Your task to perform on an android device: What's the news about the US dollar? Image 0: 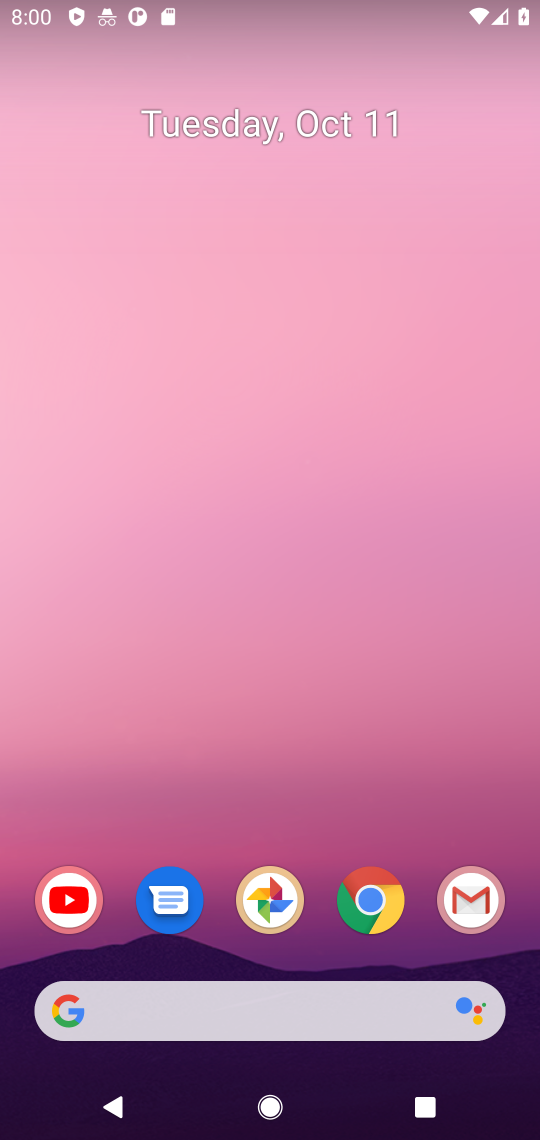
Step 0: press home button
Your task to perform on an android device: What's the news about the US dollar? Image 1: 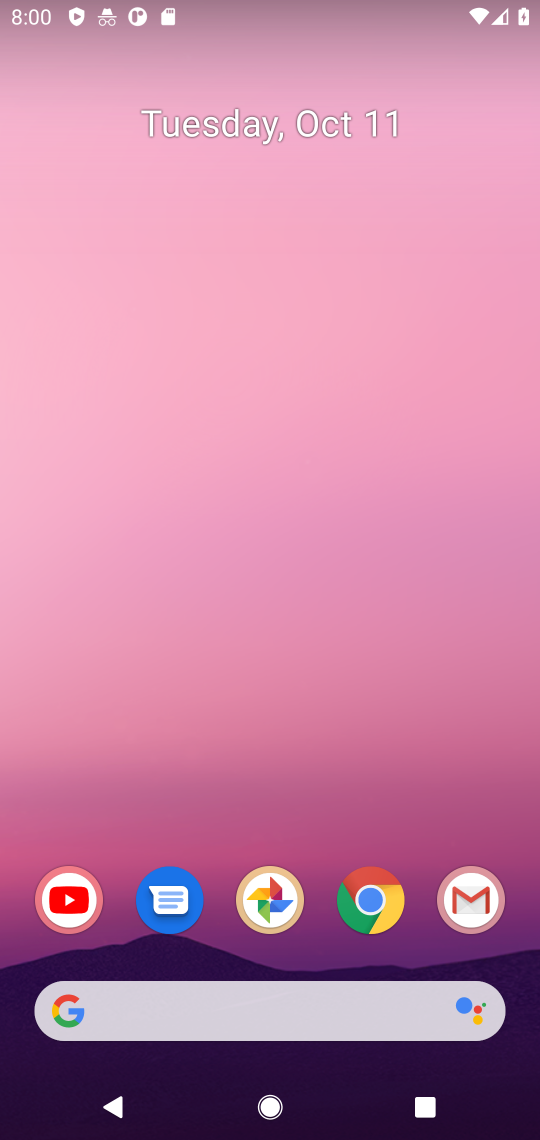
Step 1: click (392, 899)
Your task to perform on an android device: What's the news about the US dollar? Image 2: 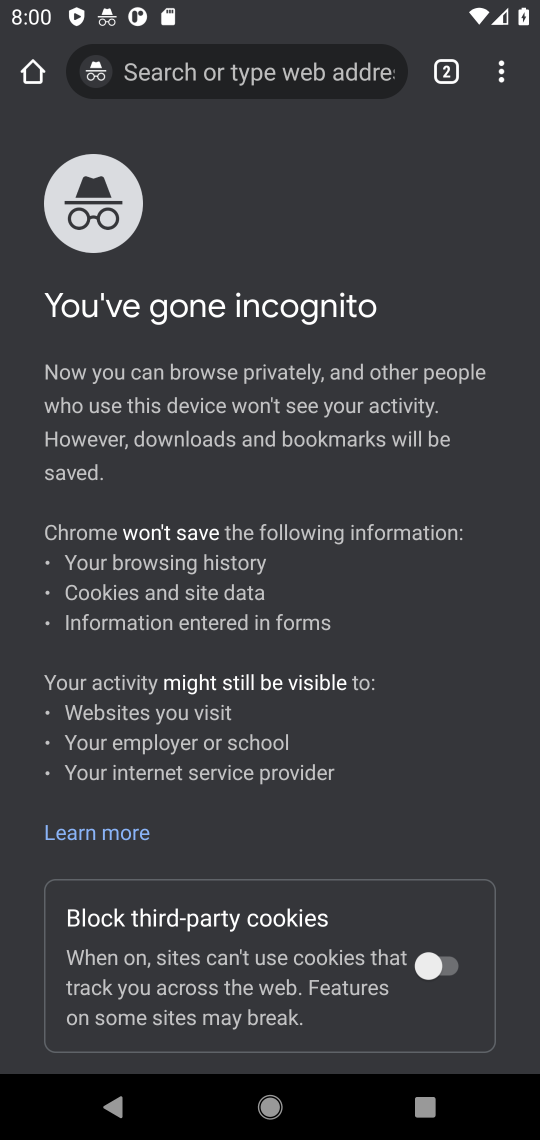
Step 2: click (369, 86)
Your task to perform on an android device: What's the news about the US dollar? Image 3: 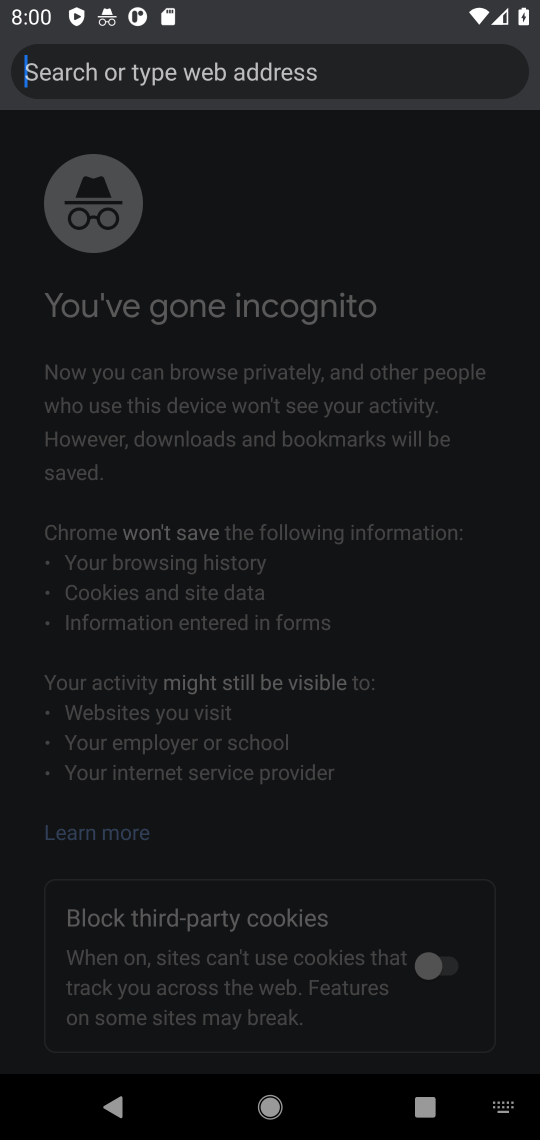
Step 3: type "news about the US dollar"
Your task to perform on an android device: What's the news about the US dollar? Image 4: 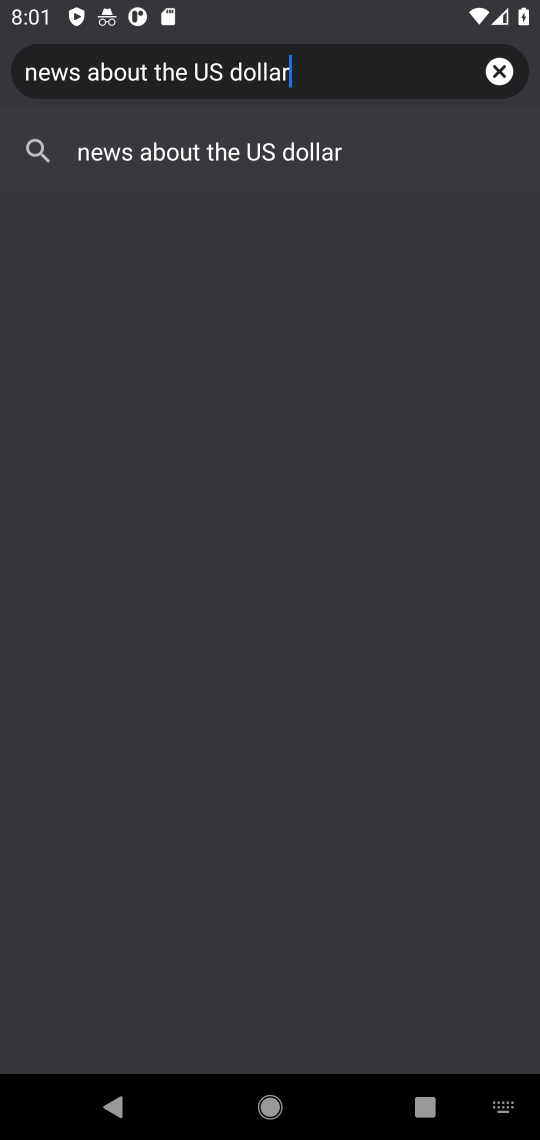
Step 4: click (305, 147)
Your task to perform on an android device: What's the news about the US dollar? Image 5: 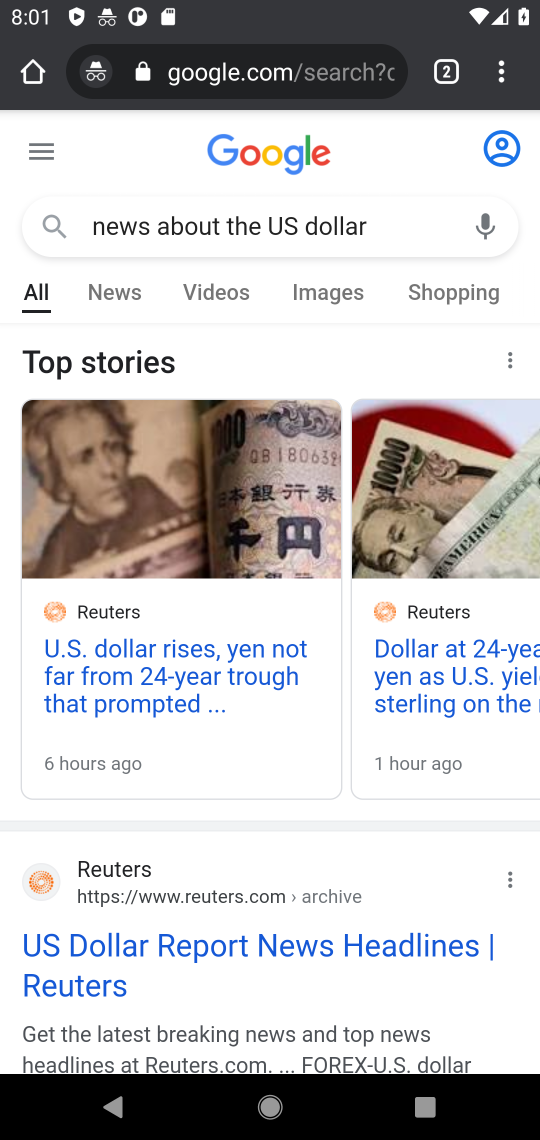
Step 5: click (124, 293)
Your task to perform on an android device: What's the news about the US dollar? Image 6: 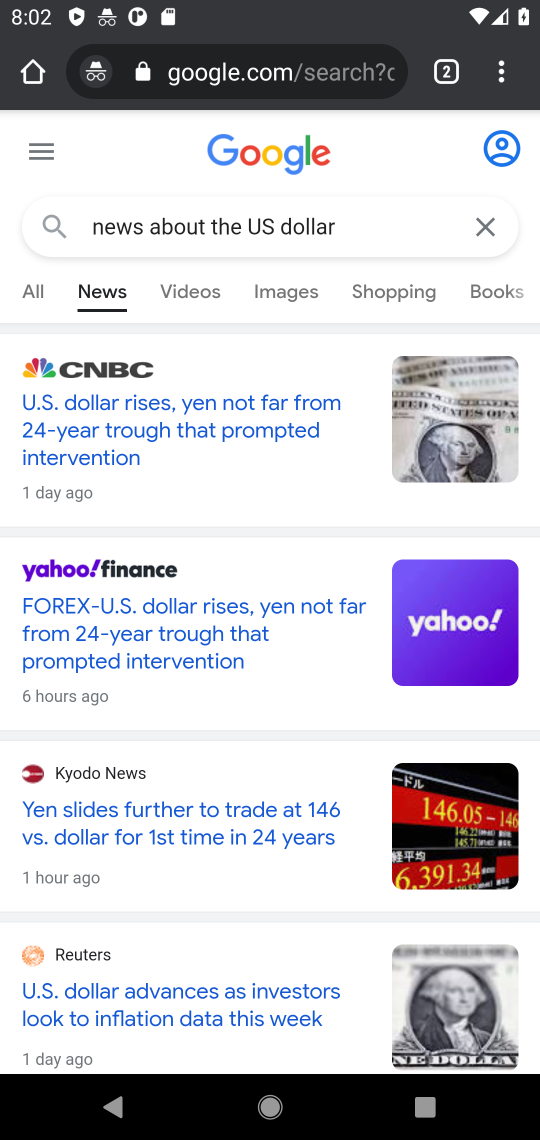
Step 6: task complete